Your task to perform on an android device: Go to wifi settings Image 0: 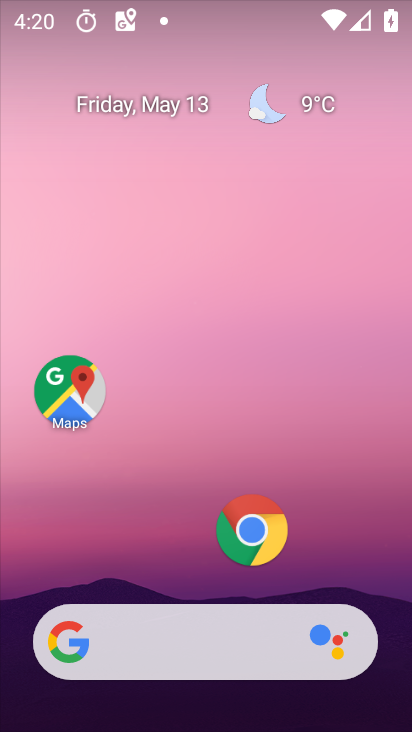
Step 0: drag from (200, 575) to (199, 62)
Your task to perform on an android device: Go to wifi settings Image 1: 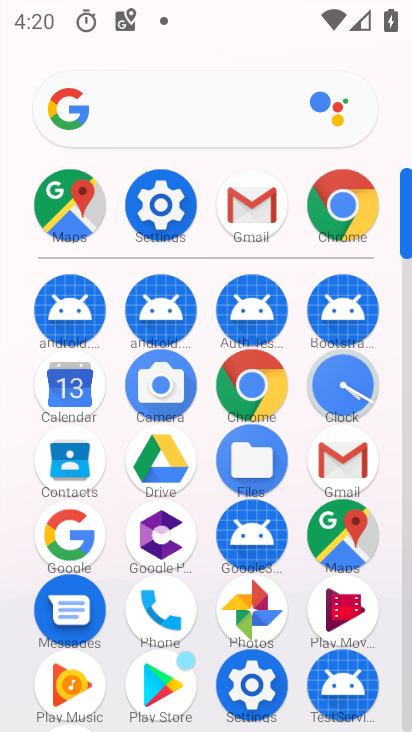
Step 1: click (157, 199)
Your task to perform on an android device: Go to wifi settings Image 2: 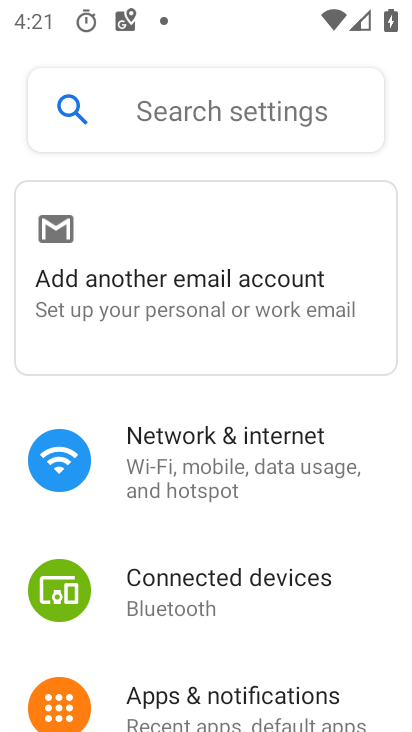
Step 2: click (173, 452)
Your task to perform on an android device: Go to wifi settings Image 3: 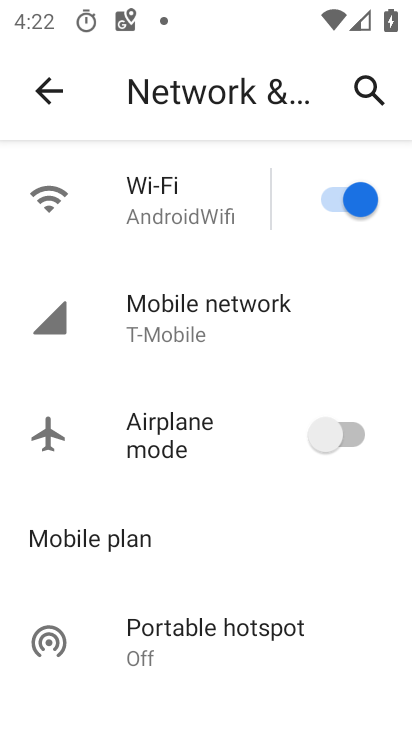
Step 3: click (198, 193)
Your task to perform on an android device: Go to wifi settings Image 4: 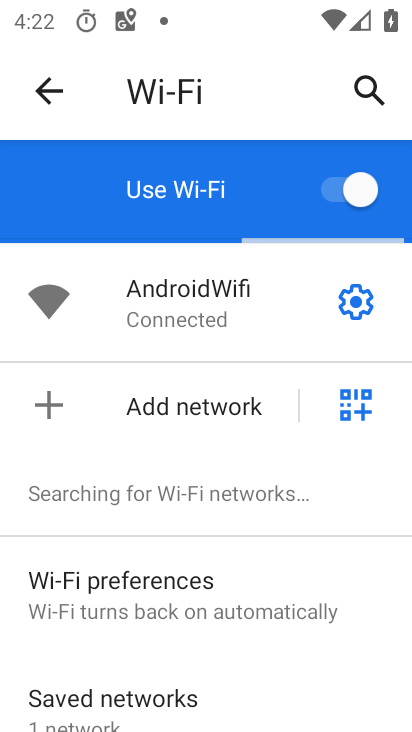
Step 4: task complete